Your task to perform on an android device: turn off priority inbox in the gmail app Image 0: 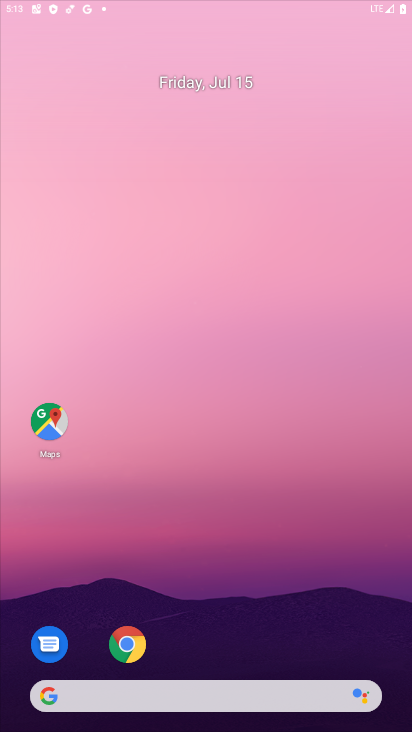
Step 0: click (132, 318)
Your task to perform on an android device: turn off priority inbox in the gmail app Image 1: 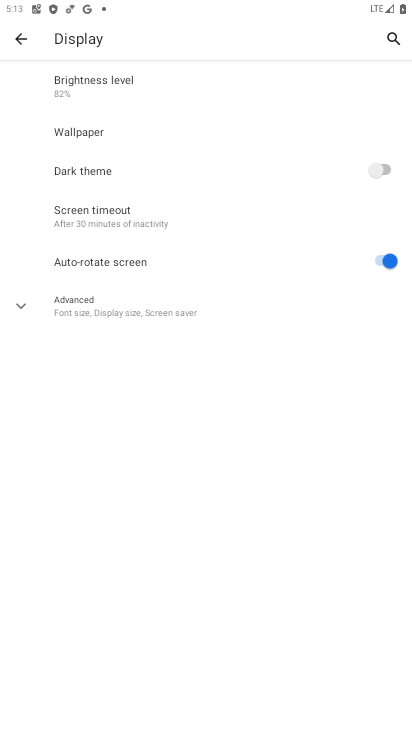
Step 1: press back button
Your task to perform on an android device: turn off priority inbox in the gmail app Image 2: 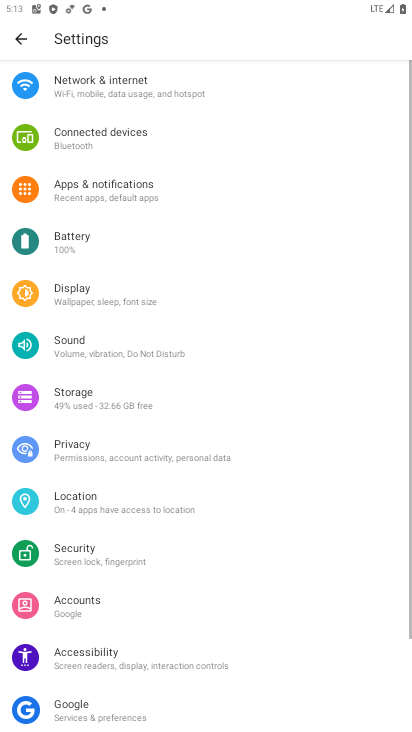
Step 2: press back button
Your task to perform on an android device: turn off priority inbox in the gmail app Image 3: 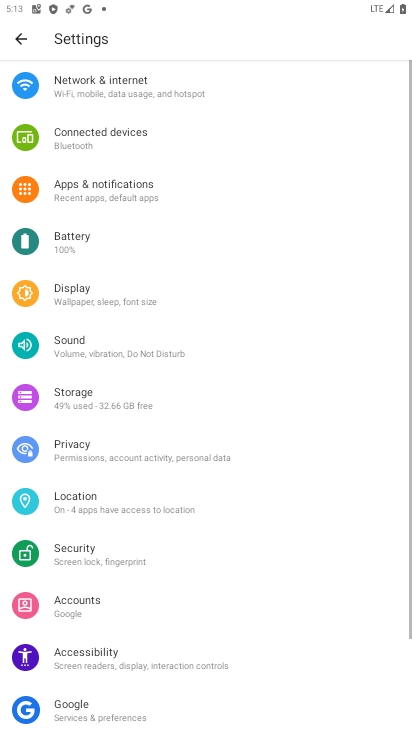
Step 3: press back button
Your task to perform on an android device: turn off priority inbox in the gmail app Image 4: 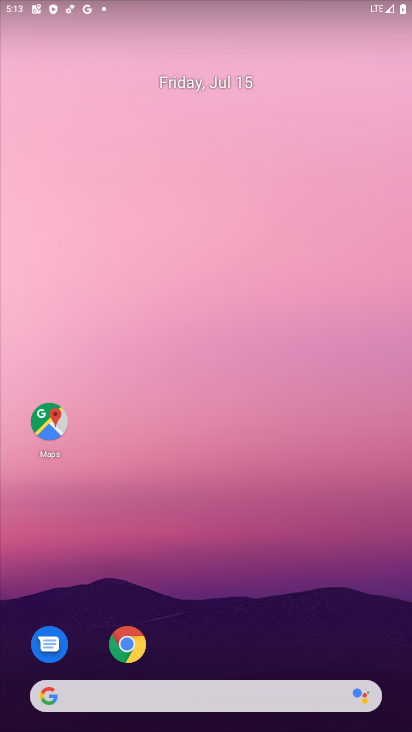
Step 4: drag from (221, 598) to (181, 288)
Your task to perform on an android device: turn off priority inbox in the gmail app Image 5: 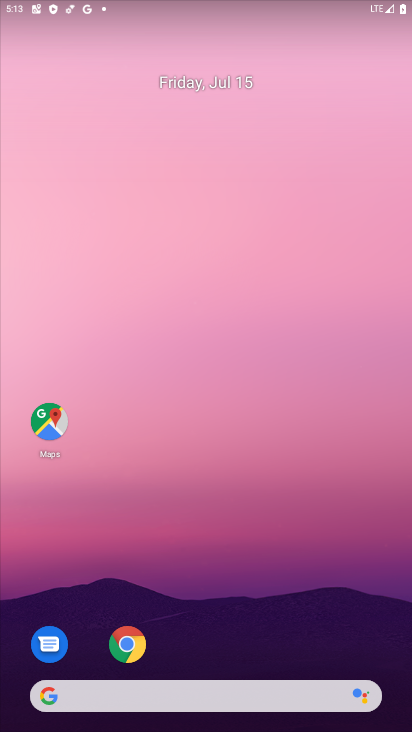
Step 5: drag from (223, 589) to (190, 66)
Your task to perform on an android device: turn off priority inbox in the gmail app Image 6: 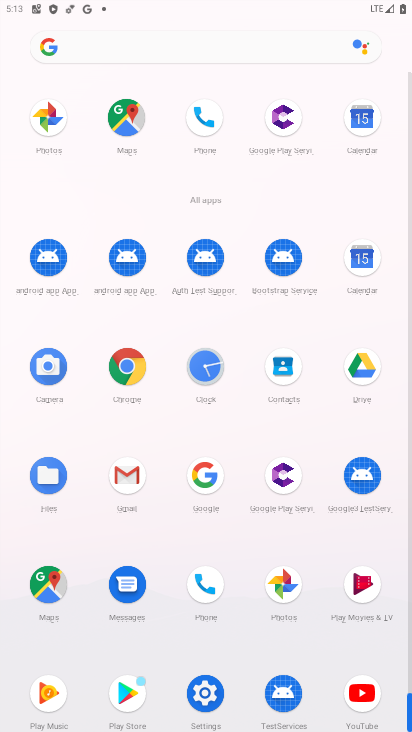
Step 6: click (123, 470)
Your task to perform on an android device: turn off priority inbox in the gmail app Image 7: 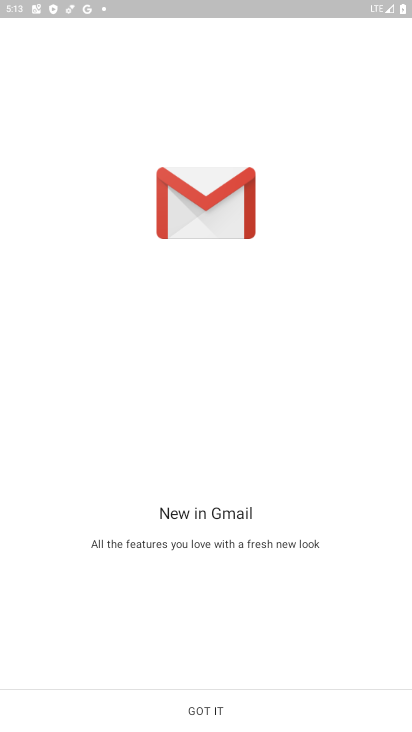
Step 7: click (201, 710)
Your task to perform on an android device: turn off priority inbox in the gmail app Image 8: 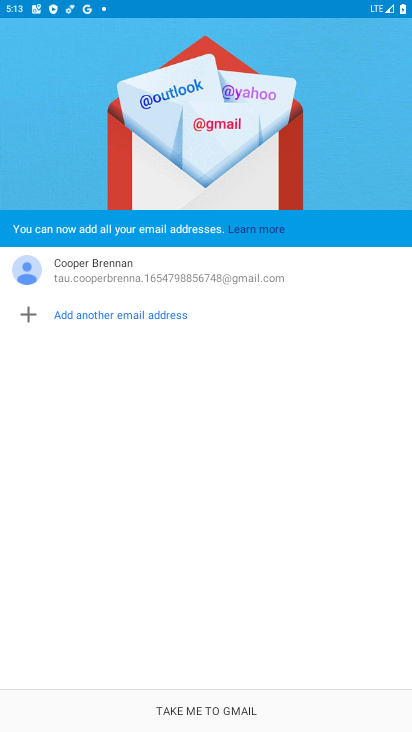
Step 8: click (187, 715)
Your task to perform on an android device: turn off priority inbox in the gmail app Image 9: 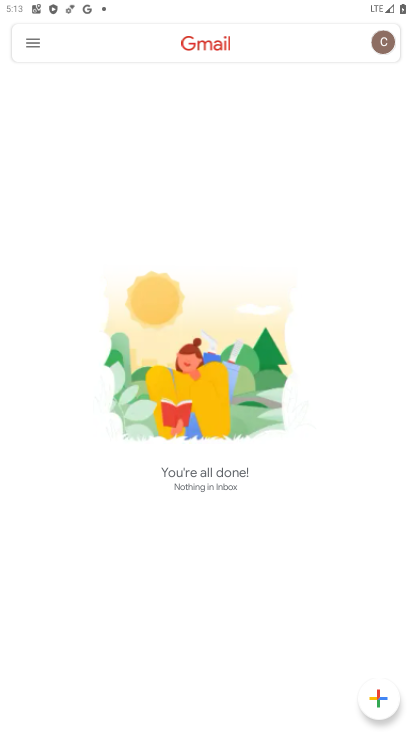
Step 9: click (32, 46)
Your task to perform on an android device: turn off priority inbox in the gmail app Image 10: 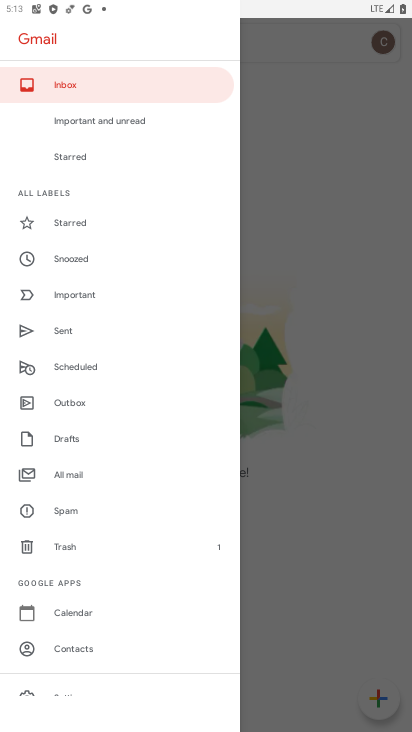
Step 10: drag from (189, 655) to (188, 304)
Your task to perform on an android device: turn off priority inbox in the gmail app Image 11: 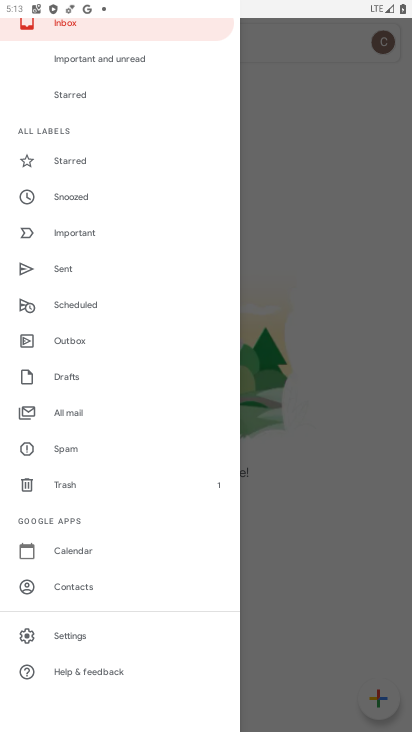
Step 11: click (70, 632)
Your task to perform on an android device: turn off priority inbox in the gmail app Image 12: 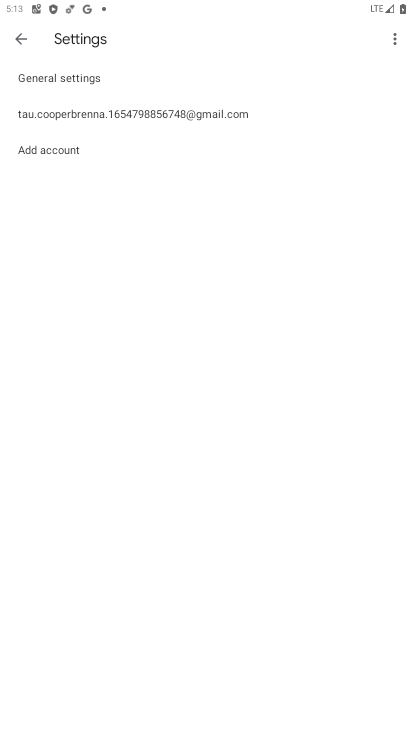
Step 12: click (15, 38)
Your task to perform on an android device: turn off priority inbox in the gmail app Image 13: 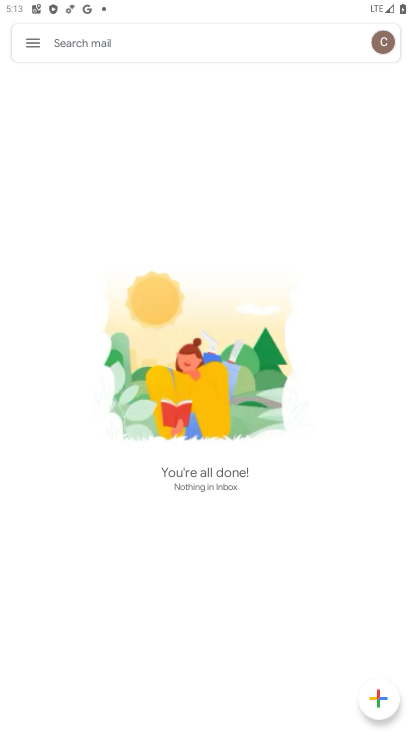
Step 13: click (23, 45)
Your task to perform on an android device: turn off priority inbox in the gmail app Image 14: 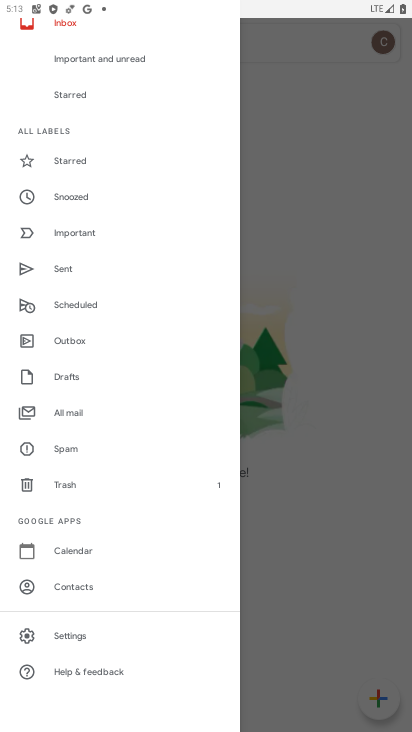
Step 14: click (70, 634)
Your task to perform on an android device: turn off priority inbox in the gmail app Image 15: 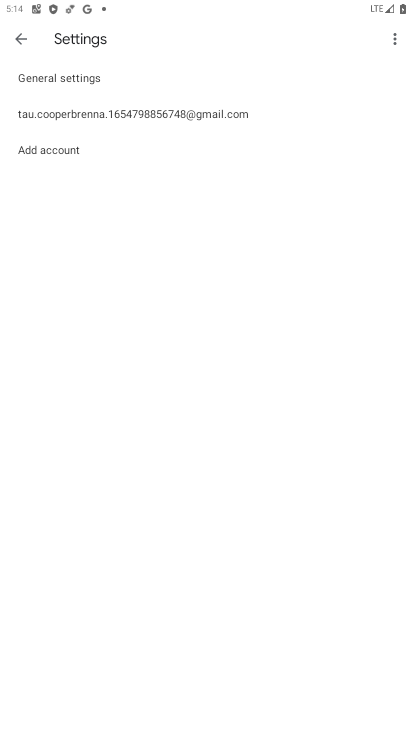
Step 15: click (95, 116)
Your task to perform on an android device: turn off priority inbox in the gmail app Image 16: 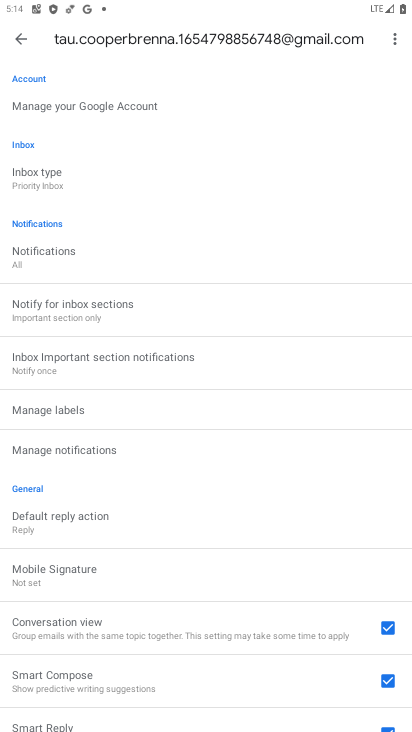
Step 16: click (39, 163)
Your task to perform on an android device: turn off priority inbox in the gmail app Image 17: 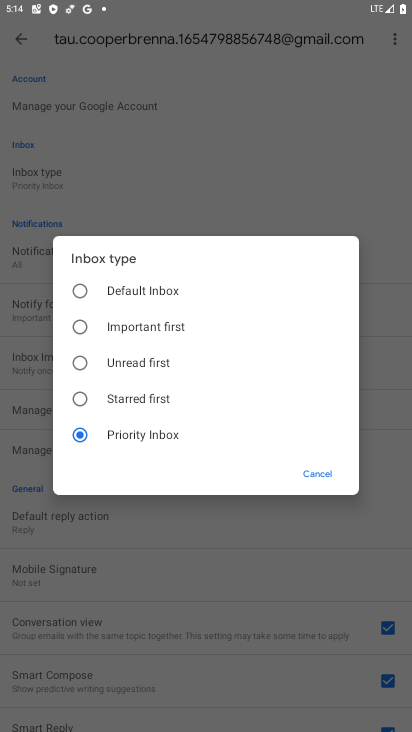
Step 17: click (78, 291)
Your task to perform on an android device: turn off priority inbox in the gmail app Image 18: 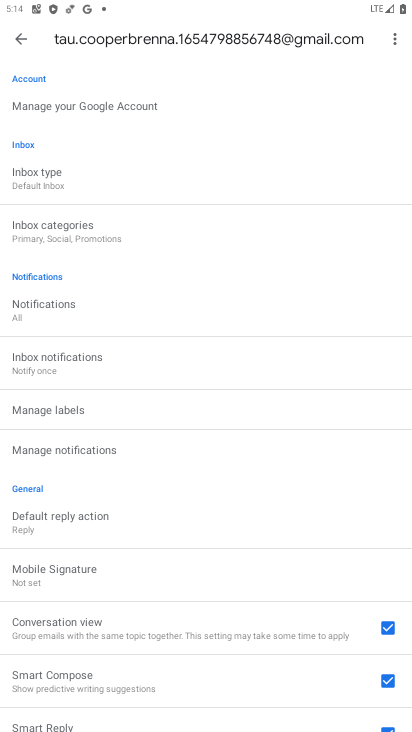
Step 18: task complete